Your task to perform on an android device: When is my next meeting? Image 0: 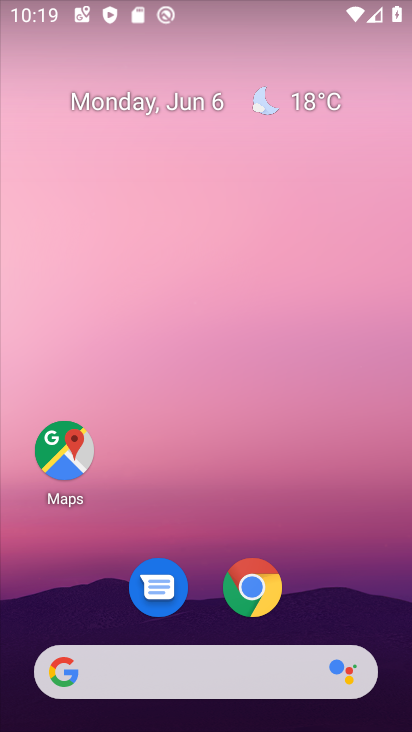
Step 0: drag from (386, 576) to (250, 88)
Your task to perform on an android device: When is my next meeting? Image 1: 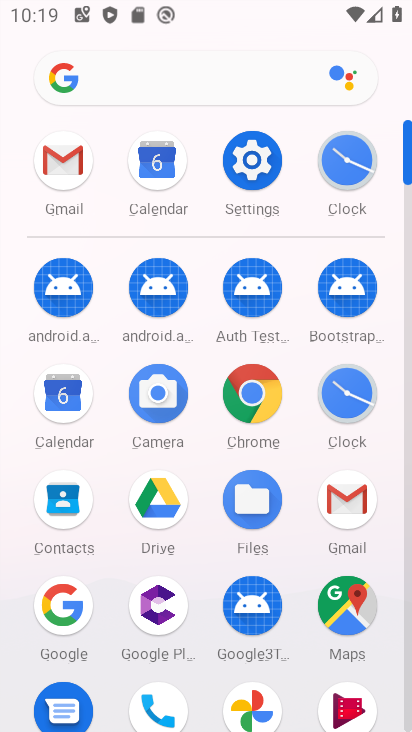
Step 1: click (142, 186)
Your task to perform on an android device: When is my next meeting? Image 2: 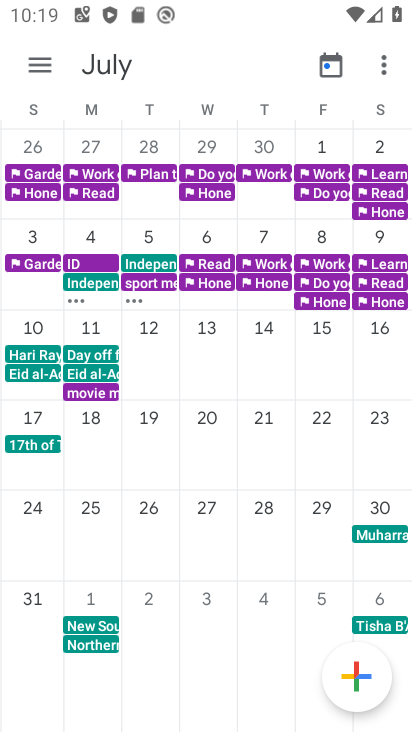
Step 2: click (32, 59)
Your task to perform on an android device: When is my next meeting? Image 3: 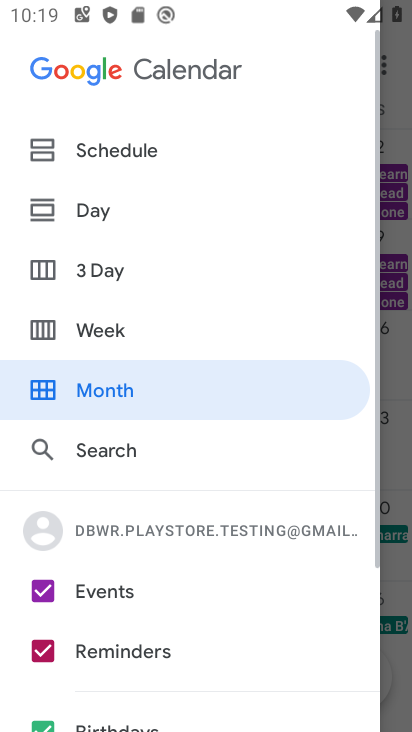
Step 3: click (140, 158)
Your task to perform on an android device: When is my next meeting? Image 4: 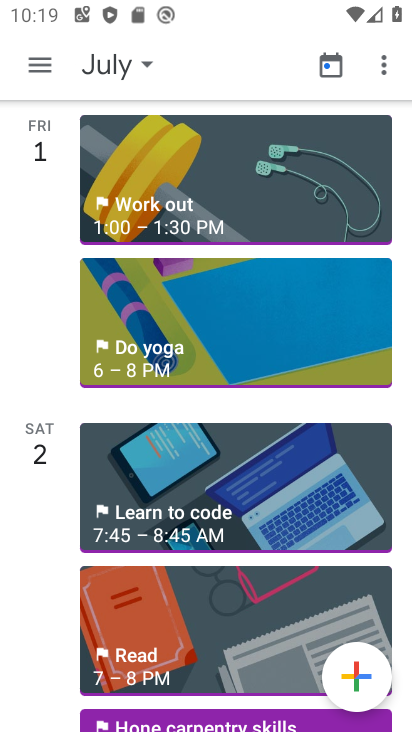
Step 4: click (127, 55)
Your task to perform on an android device: When is my next meeting? Image 5: 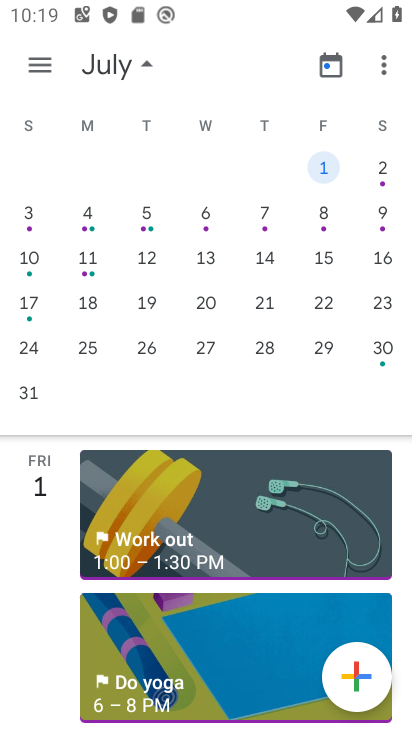
Step 5: drag from (38, 155) to (355, 138)
Your task to perform on an android device: When is my next meeting? Image 6: 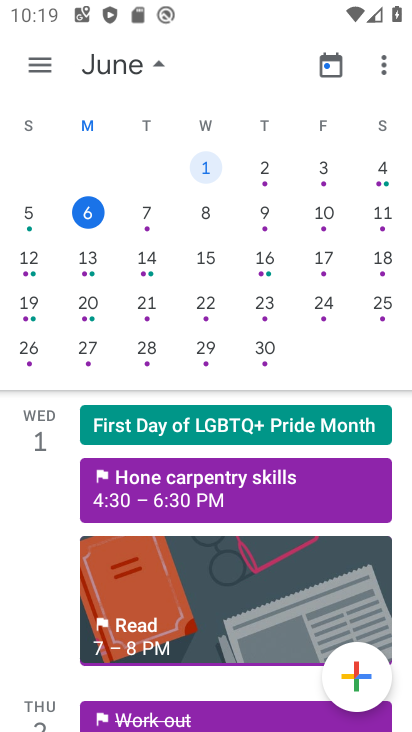
Step 6: click (151, 199)
Your task to perform on an android device: When is my next meeting? Image 7: 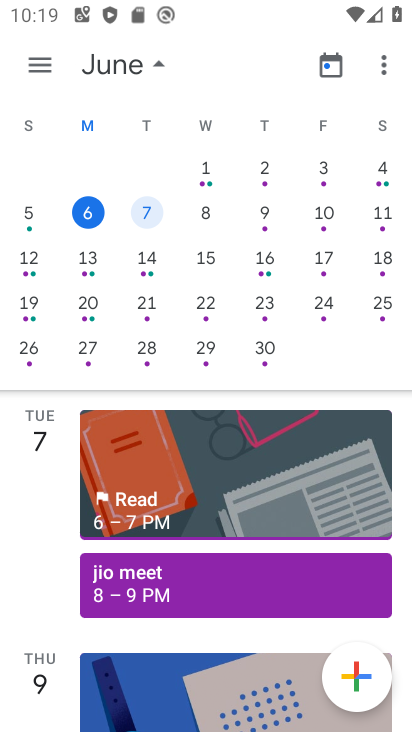
Step 7: task complete